Your task to perform on an android device: What is the recent news? Image 0: 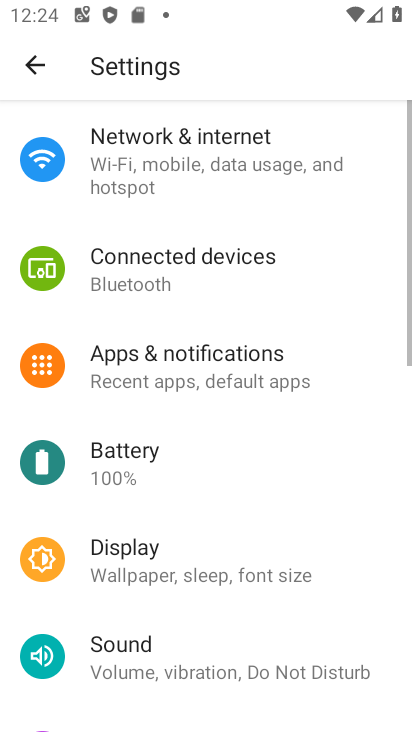
Step 0: press home button
Your task to perform on an android device: What is the recent news? Image 1: 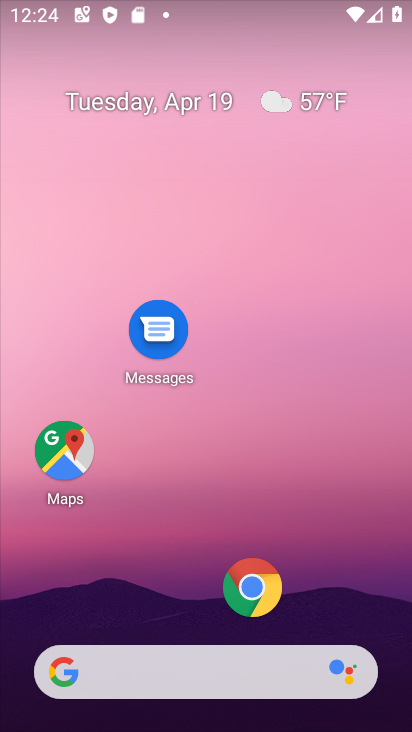
Step 1: drag from (187, 585) to (206, 103)
Your task to perform on an android device: What is the recent news? Image 2: 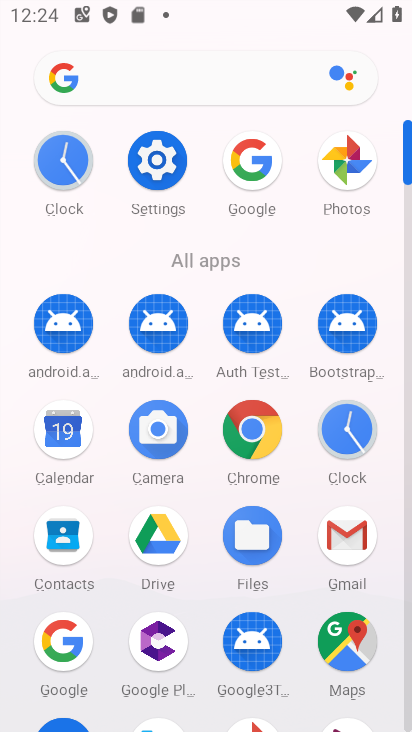
Step 2: click (251, 156)
Your task to perform on an android device: What is the recent news? Image 3: 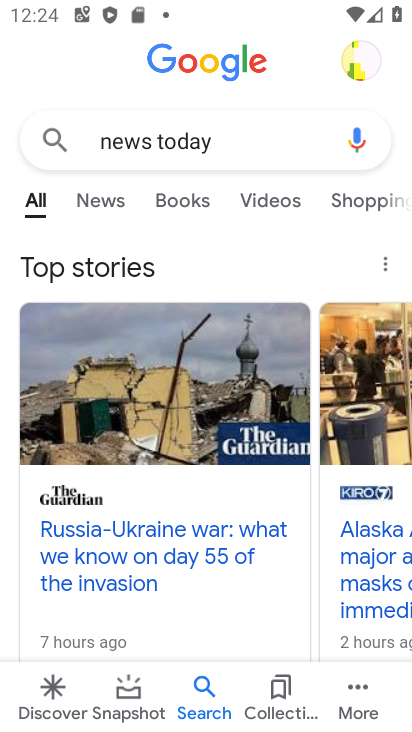
Step 3: click (226, 140)
Your task to perform on an android device: What is the recent news? Image 4: 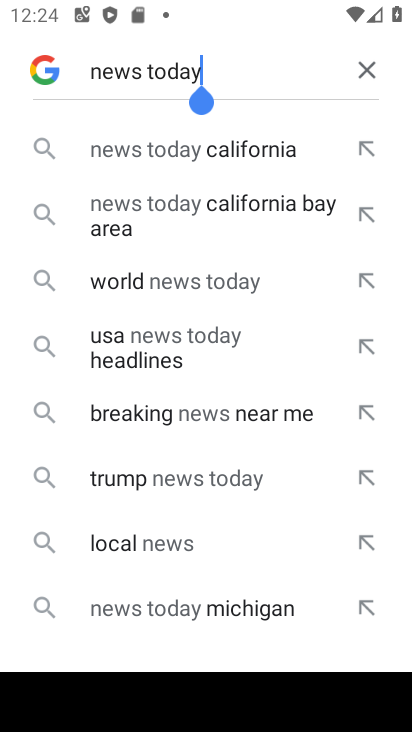
Step 4: click (367, 70)
Your task to perform on an android device: What is the recent news? Image 5: 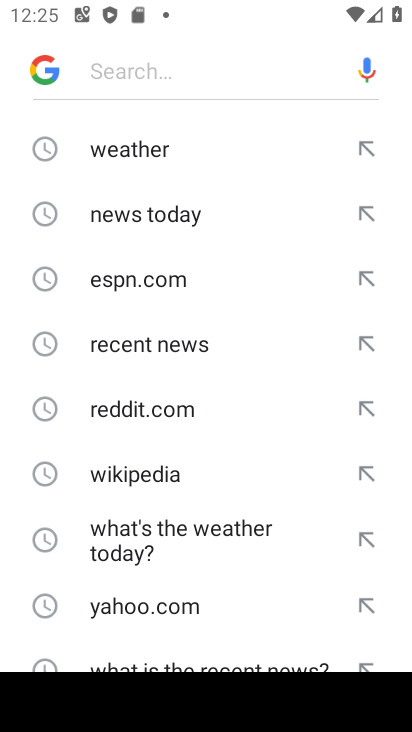
Step 5: click (150, 354)
Your task to perform on an android device: What is the recent news? Image 6: 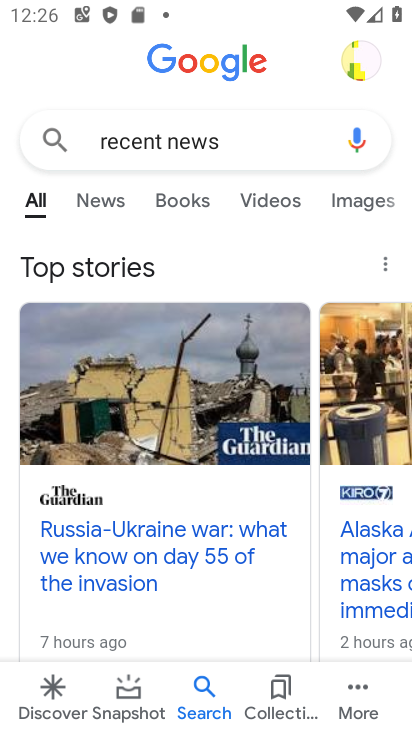
Step 6: task complete